Your task to perform on an android device: Search for pizza restaurants on Maps Image 0: 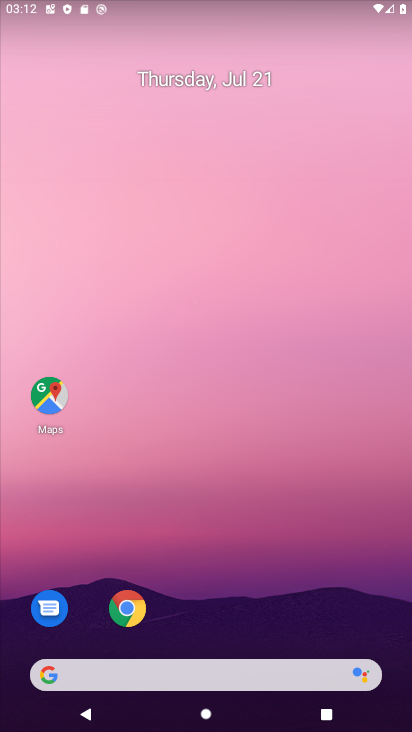
Step 0: drag from (285, 643) to (280, 158)
Your task to perform on an android device: Search for pizza restaurants on Maps Image 1: 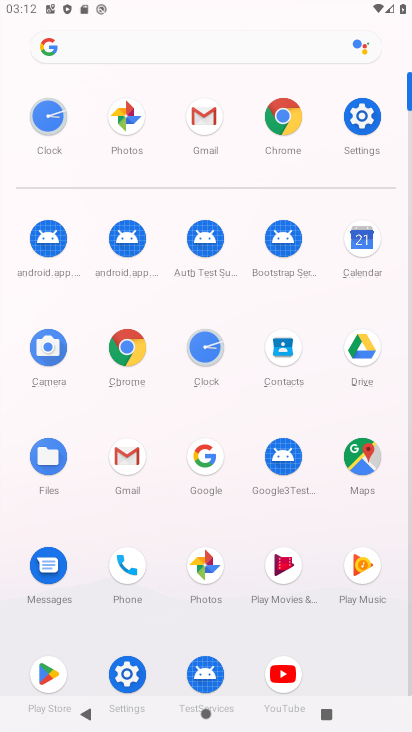
Step 1: click (368, 469)
Your task to perform on an android device: Search for pizza restaurants on Maps Image 2: 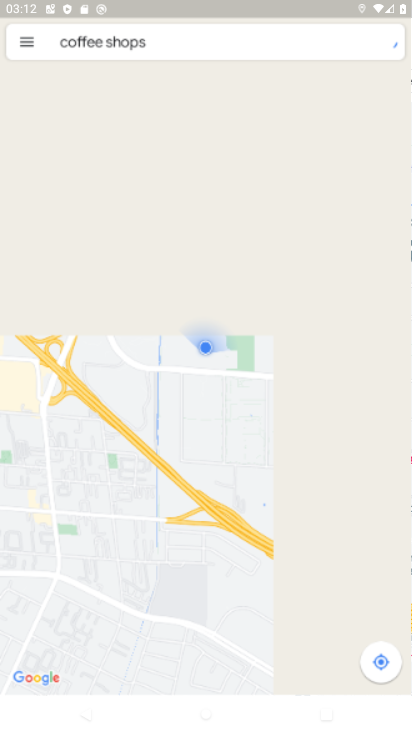
Step 2: click (177, 46)
Your task to perform on an android device: Search for pizza restaurants on Maps Image 3: 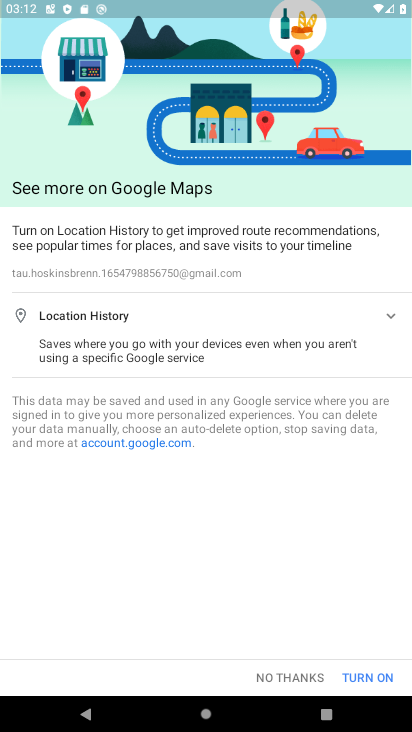
Step 3: press back button
Your task to perform on an android device: Search for pizza restaurants on Maps Image 4: 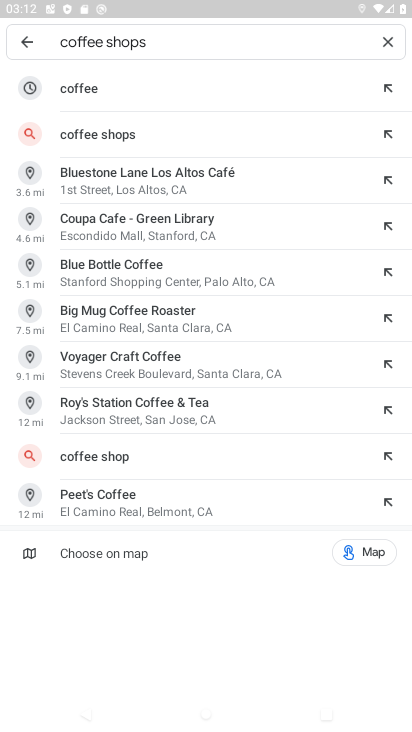
Step 4: click (232, 55)
Your task to perform on an android device: Search for pizza restaurants on Maps Image 5: 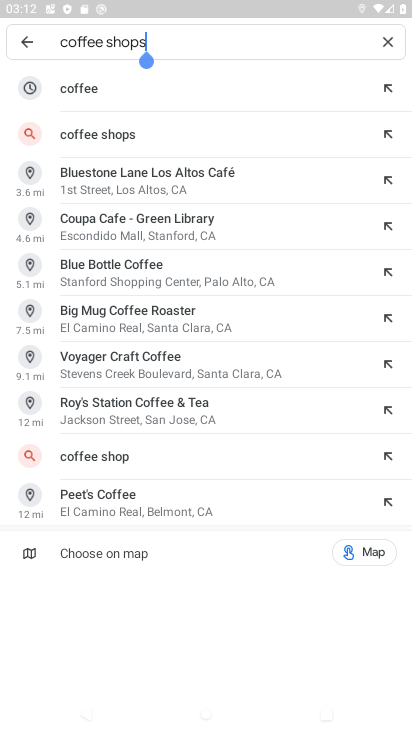
Step 5: click (232, 55)
Your task to perform on an android device: Search for pizza restaurants on Maps Image 6: 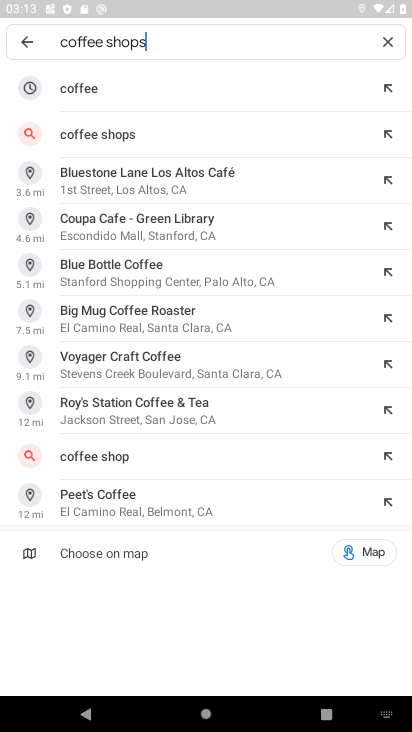
Step 6: click (386, 41)
Your task to perform on an android device: Search for pizza restaurants on Maps Image 7: 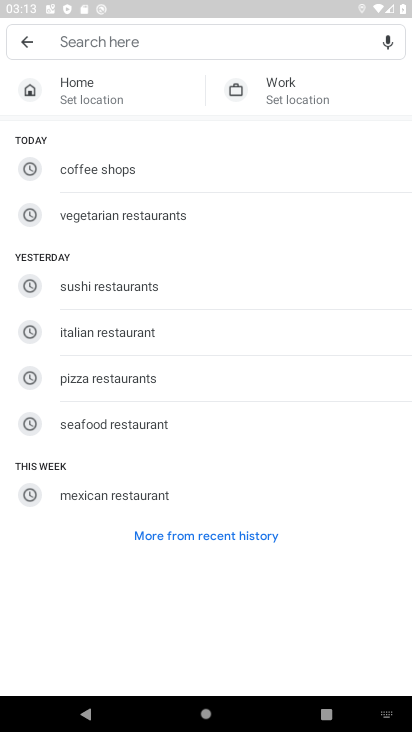
Step 7: type "pizza res"
Your task to perform on an android device: Search for pizza restaurants on Maps Image 8: 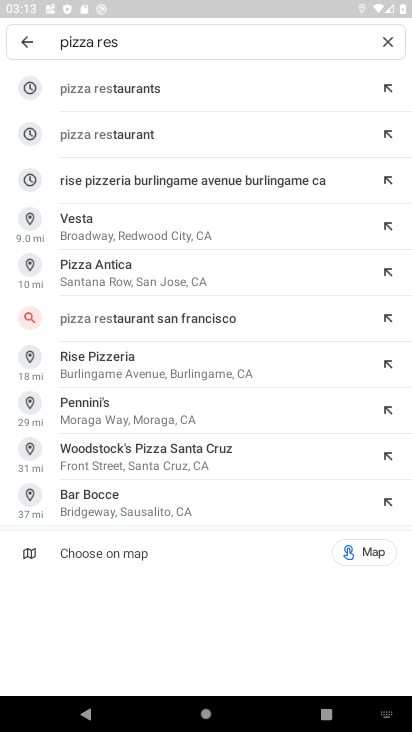
Step 8: click (136, 89)
Your task to perform on an android device: Search for pizza restaurants on Maps Image 9: 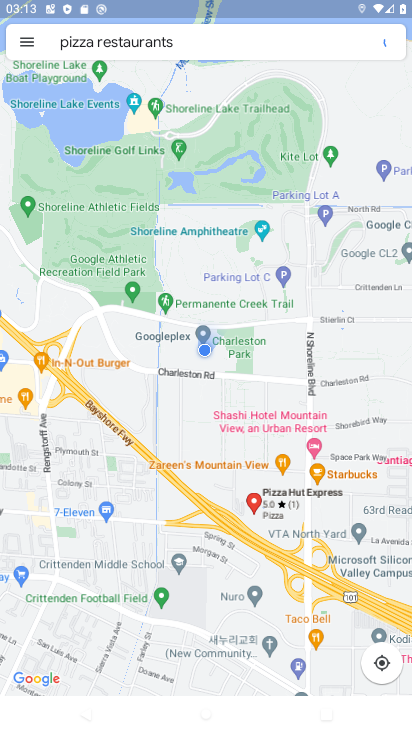
Step 9: task complete